Your task to perform on an android device: Open accessibility settings Image 0: 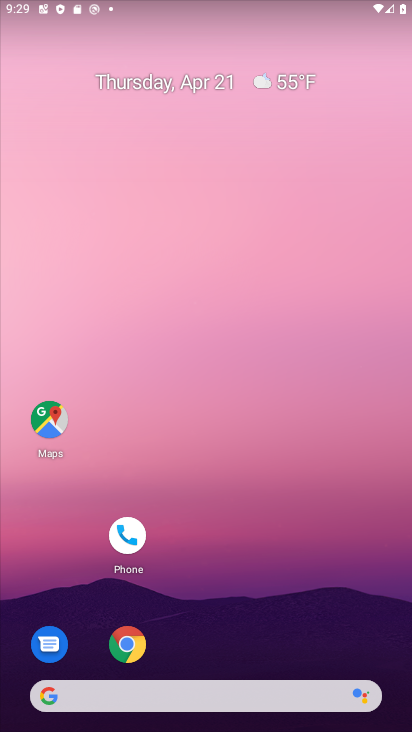
Step 0: drag from (262, 634) to (226, 222)
Your task to perform on an android device: Open accessibility settings Image 1: 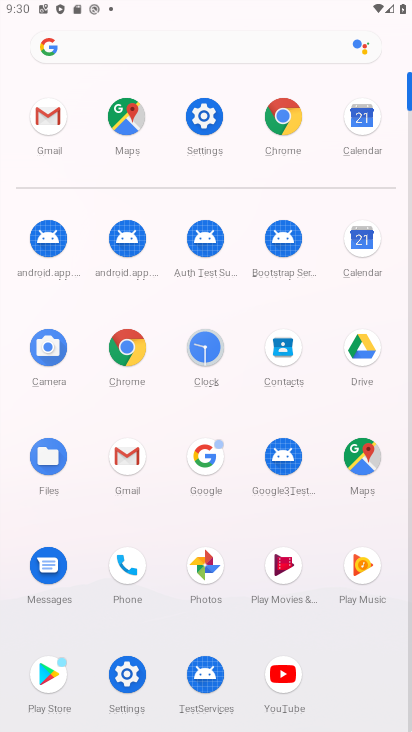
Step 1: click (123, 675)
Your task to perform on an android device: Open accessibility settings Image 2: 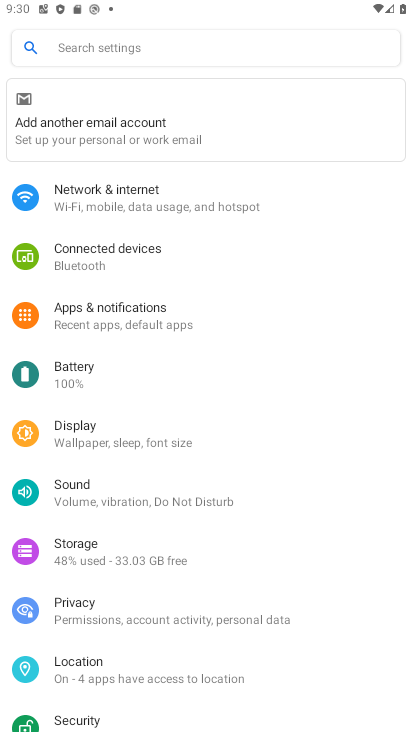
Step 2: drag from (141, 616) to (242, 228)
Your task to perform on an android device: Open accessibility settings Image 3: 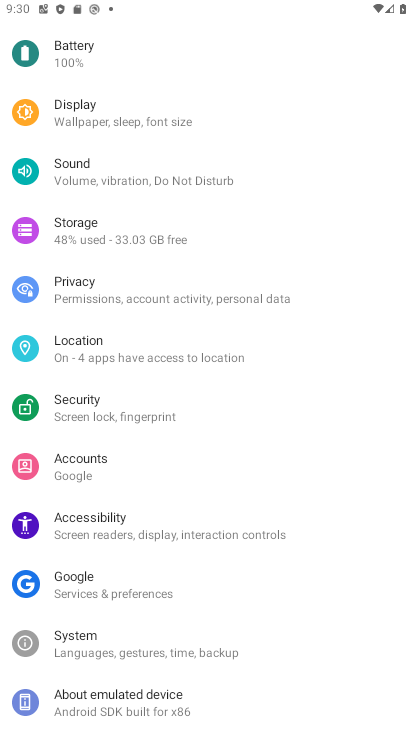
Step 3: click (131, 539)
Your task to perform on an android device: Open accessibility settings Image 4: 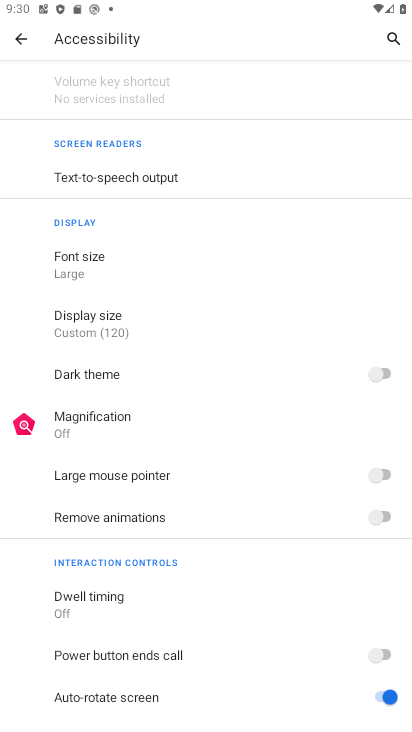
Step 4: task complete